Your task to perform on an android device: Open my contact list Image 0: 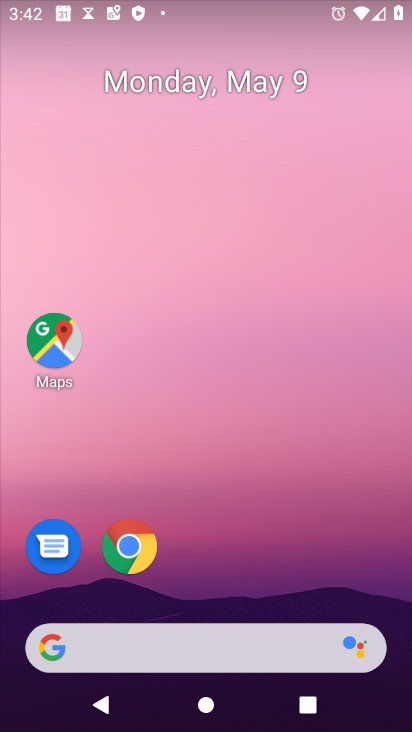
Step 0: drag from (290, 549) to (232, 120)
Your task to perform on an android device: Open my contact list Image 1: 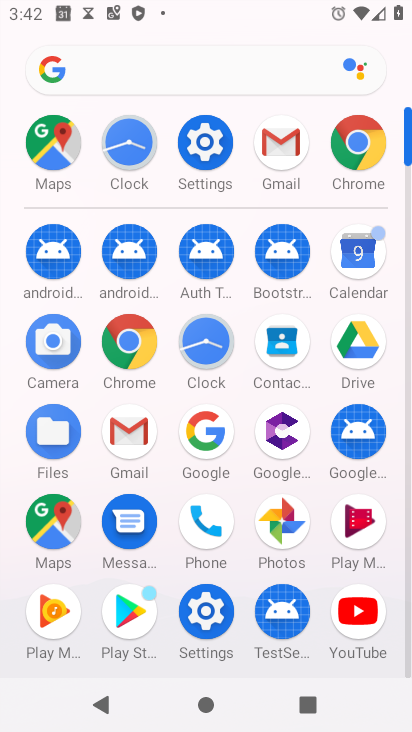
Step 1: click (213, 511)
Your task to perform on an android device: Open my contact list Image 2: 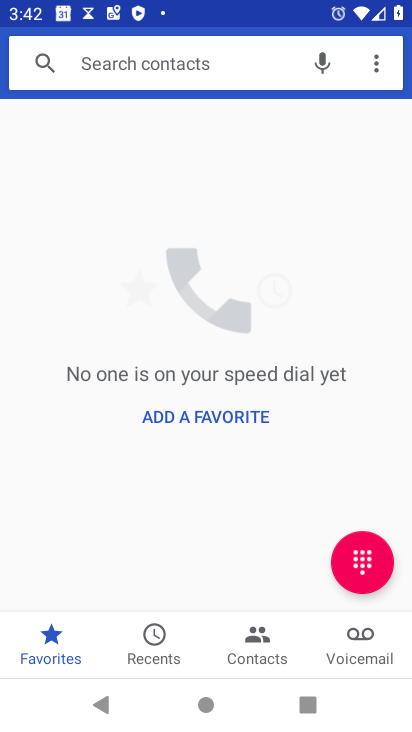
Step 2: click (278, 659)
Your task to perform on an android device: Open my contact list Image 3: 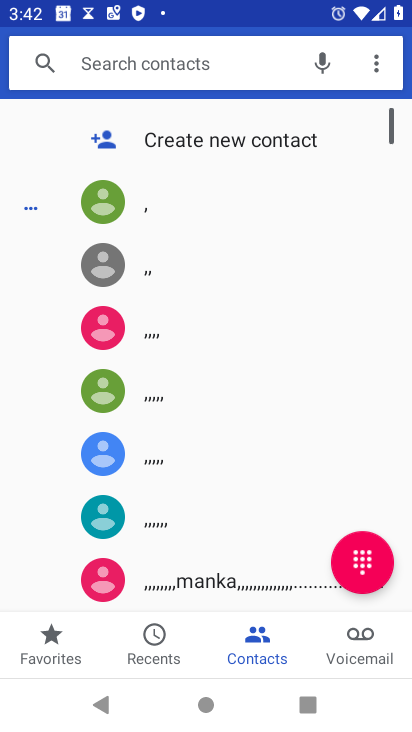
Step 3: task complete